Your task to perform on an android device: Open Maps and search for coffee Image 0: 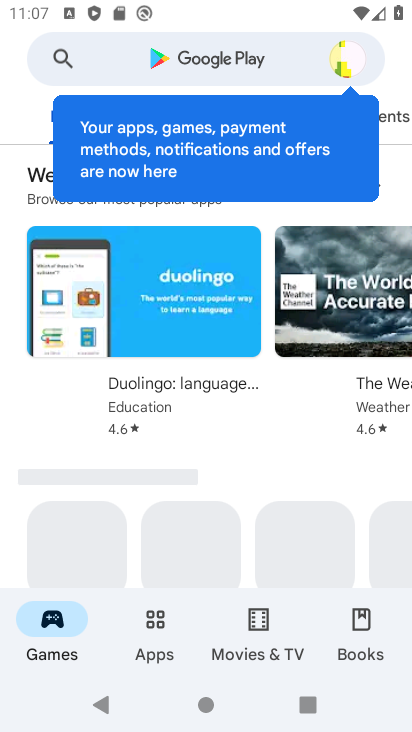
Step 0: press home button
Your task to perform on an android device: Open Maps and search for coffee Image 1: 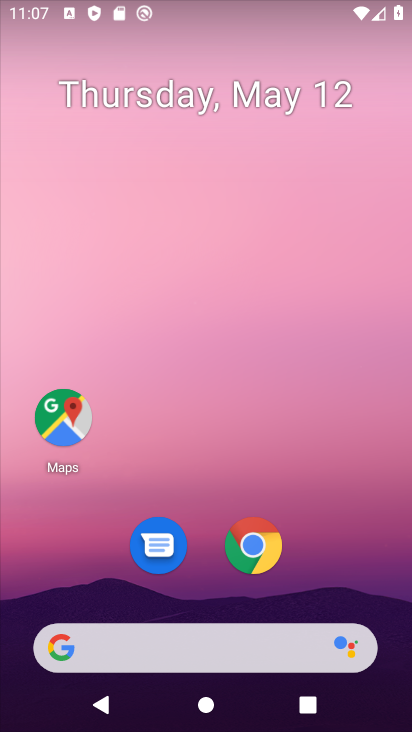
Step 1: drag from (267, 664) to (229, 332)
Your task to perform on an android device: Open Maps and search for coffee Image 2: 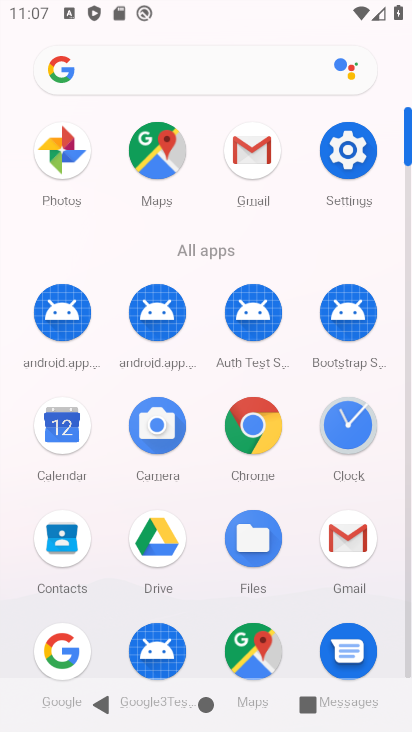
Step 2: click (162, 153)
Your task to perform on an android device: Open Maps and search for coffee Image 3: 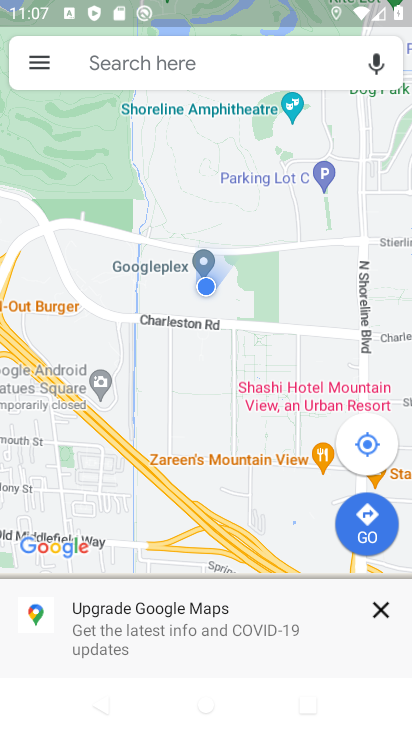
Step 3: click (181, 70)
Your task to perform on an android device: Open Maps and search for coffee Image 4: 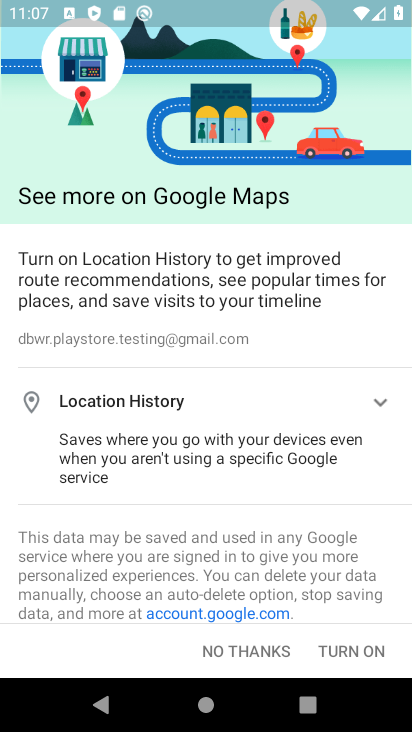
Step 4: click (210, 653)
Your task to perform on an android device: Open Maps and search for coffee Image 5: 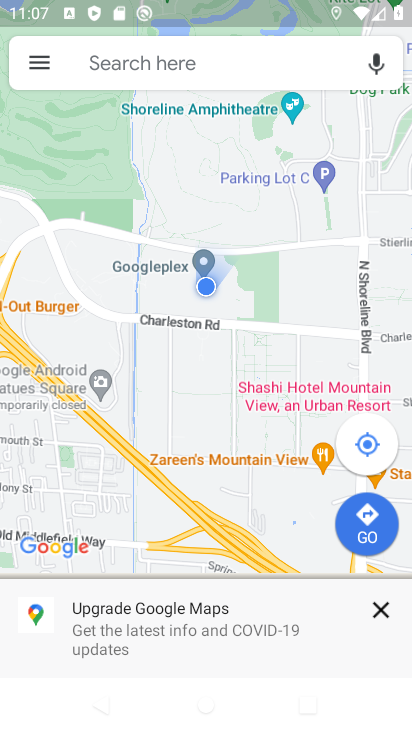
Step 5: click (144, 62)
Your task to perform on an android device: Open Maps and search for coffee Image 6: 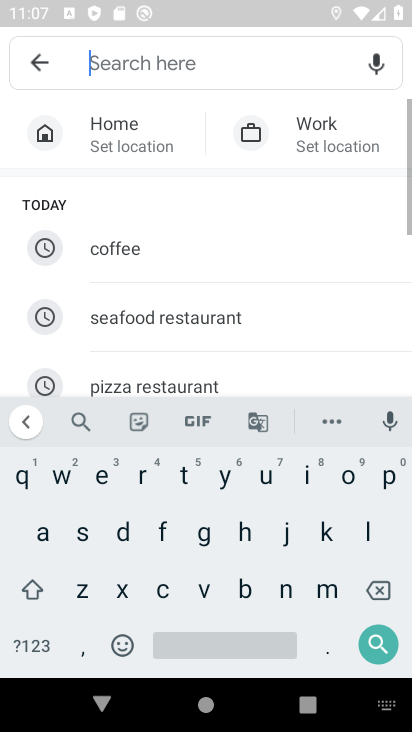
Step 6: click (137, 251)
Your task to perform on an android device: Open Maps and search for coffee Image 7: 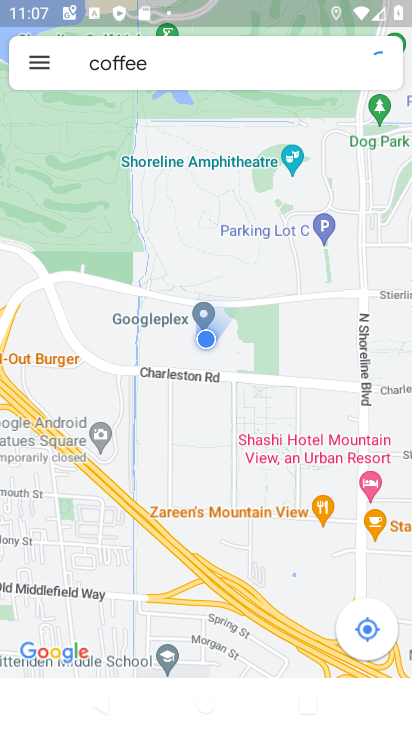
Step 7: task complete